Your task to perform on an android device: Show me productivity apps on the Play Store Image 0: 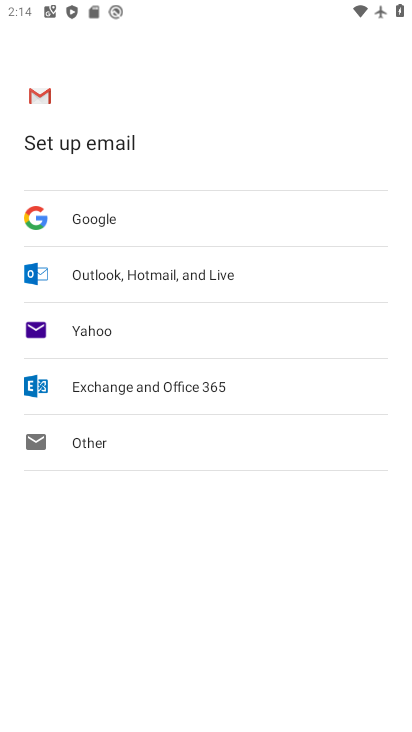
Step 0: press home button
Your task to perform on an android device: Show me productivity apps on the Play Store Image 1: 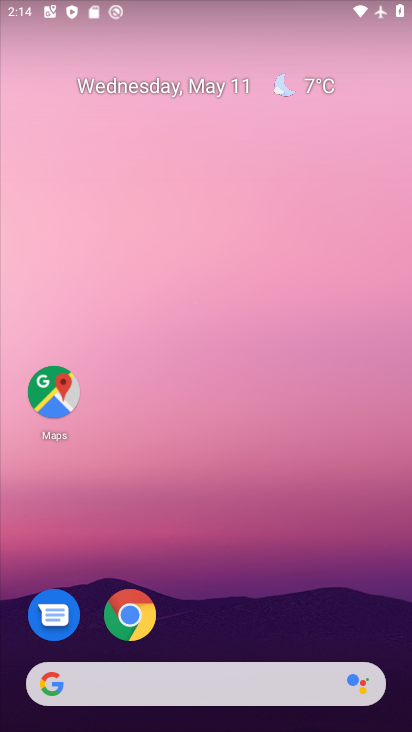
Step 1: drag from (308, 549) to (285, 167)
Your task to perform on an android device: Show me productivity apps on the Play Store Image 2: 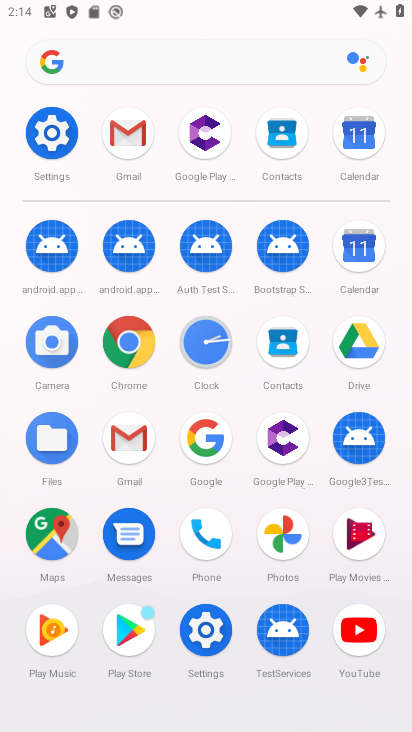
Step 2: click (136, 639)
Your task to perform on an android device: Show me productivity apps on the Play Store Image 3: 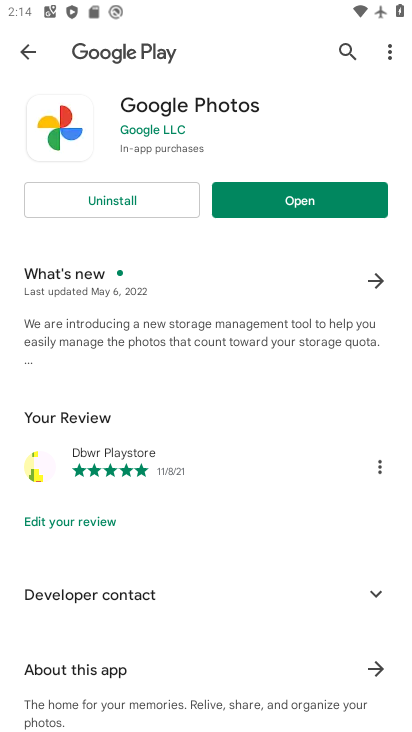
Step 3: click (19, 67)
Your task to perform on an android device: Show me productivity apps on the Play Store Image 4: 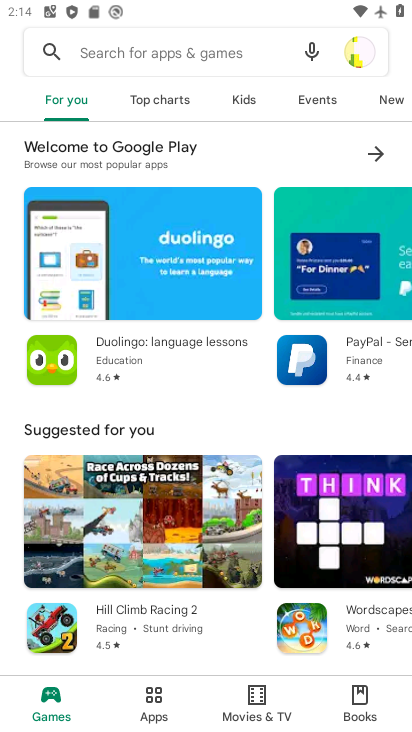
Step 4: click (163, 705)
Your task to perform on an android device: Show me productivity apps on the Play Store Image 5: 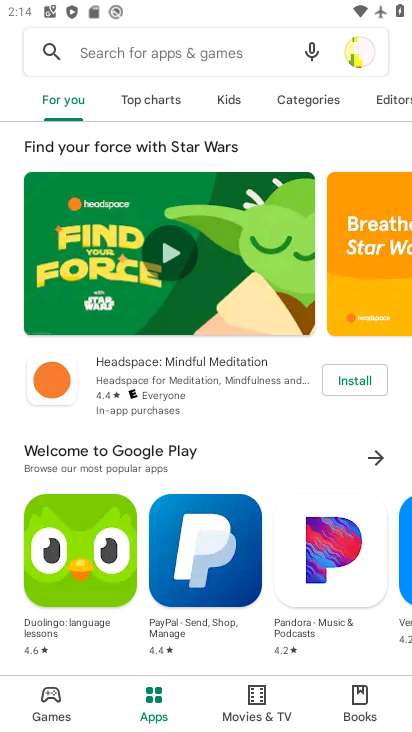
Step 5: task complete